Your task to perform on an android device: Show me productivity apps on the Play Store Image 0: 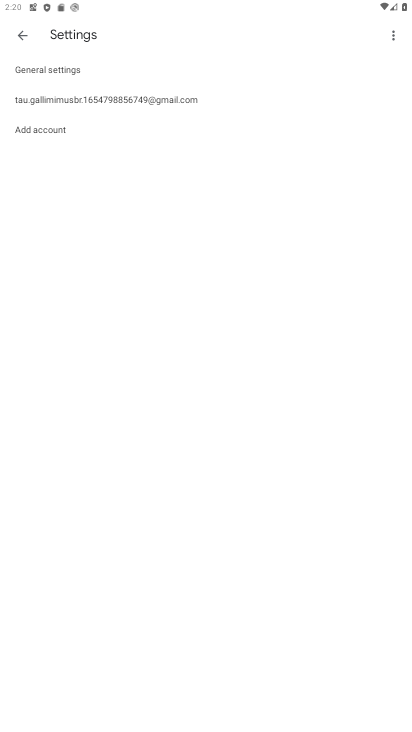
Step 0: press home button
Your task to perform on an android device: Show me productivity apps on the Play Store Image 1: 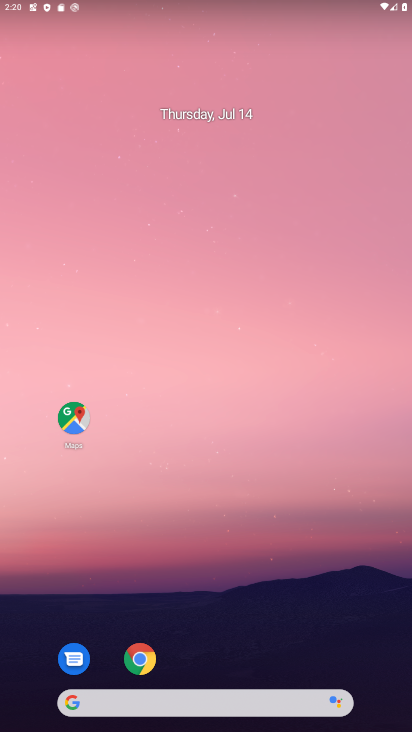
Step 1: drag from (211, 663) to (210, 108)
Your task to perform on an android device: Show me productivity apps on the Play Store Image 2: 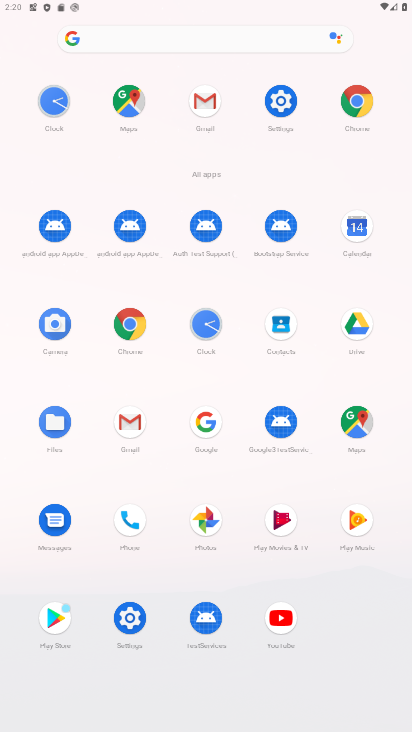
Step 2: click (59, 618)
Your task to perform on an android device: Show me productivity apps on the Play Store Image 3: 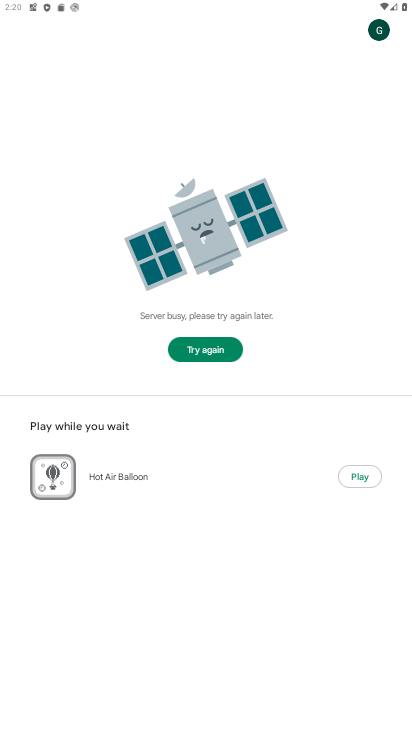
Step 3: click (199, 356)
Your task to perform on an android device: Show me productivity apps on the Play Store Image 4: 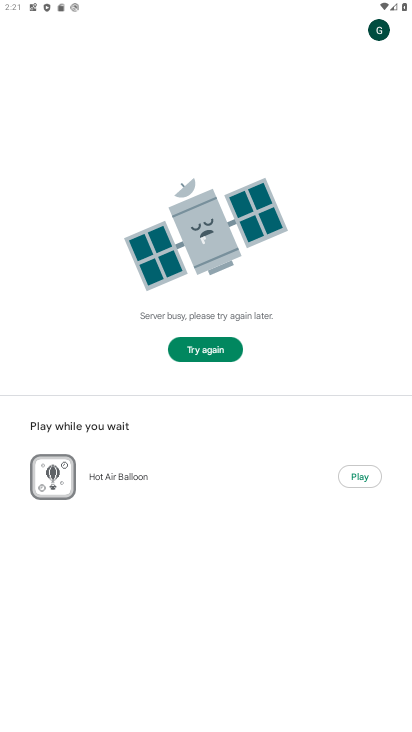
Step 4: drag from (144, 4) to (175, 319)
Your task to perform on an android device: Show me productivity apps on the Play Store Image 5: 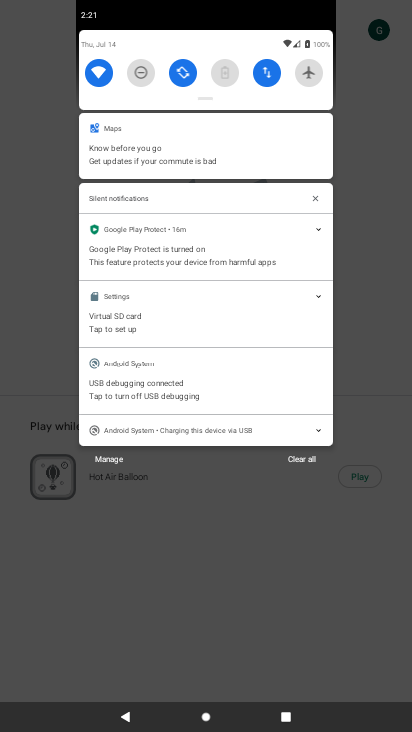
Step 5: drag from (175, 319) to (126, 14)
Your task to perform on an android device: Show me productivity apps on the Play Store Image 6: 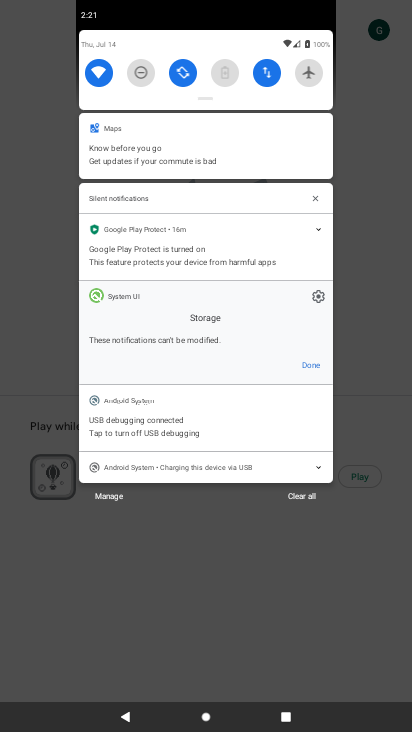
Step 6: drag from (190, 474) to (180, 23)
Your task to perform on an android device: Show me productivity apps on the Play Store Image 7: 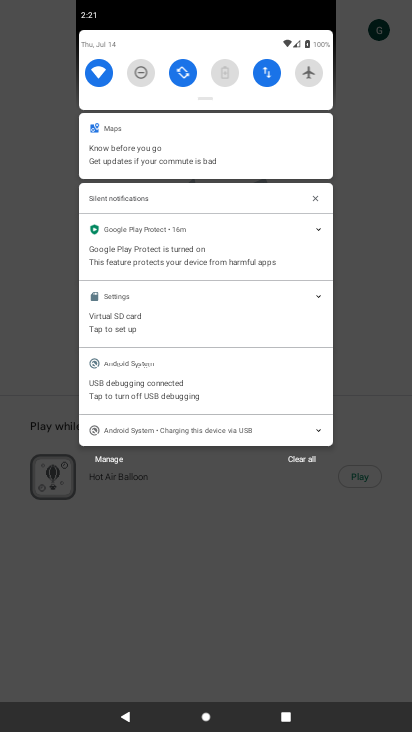
Step 7: drag from (208, 450) to (262, 4)
Your task to perform on an android device: Show me productivity apps on the Play Store Image 8: 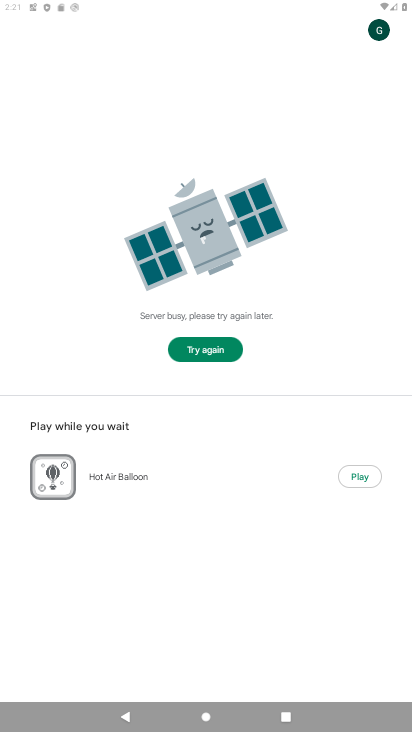
Step 8: click (205, 356)
Your task to perform on an android device: Show me productivity apps on the Play Store Image 9: 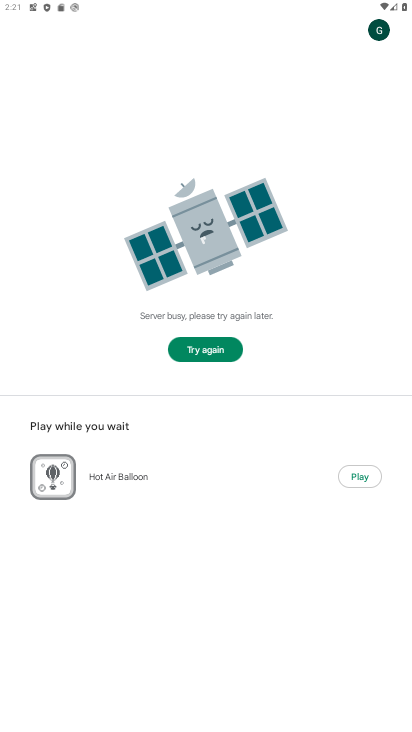
Step 9: task complete